Your task to perform on an android device: open app "PlayWell" (install if not already installed) Image 0: 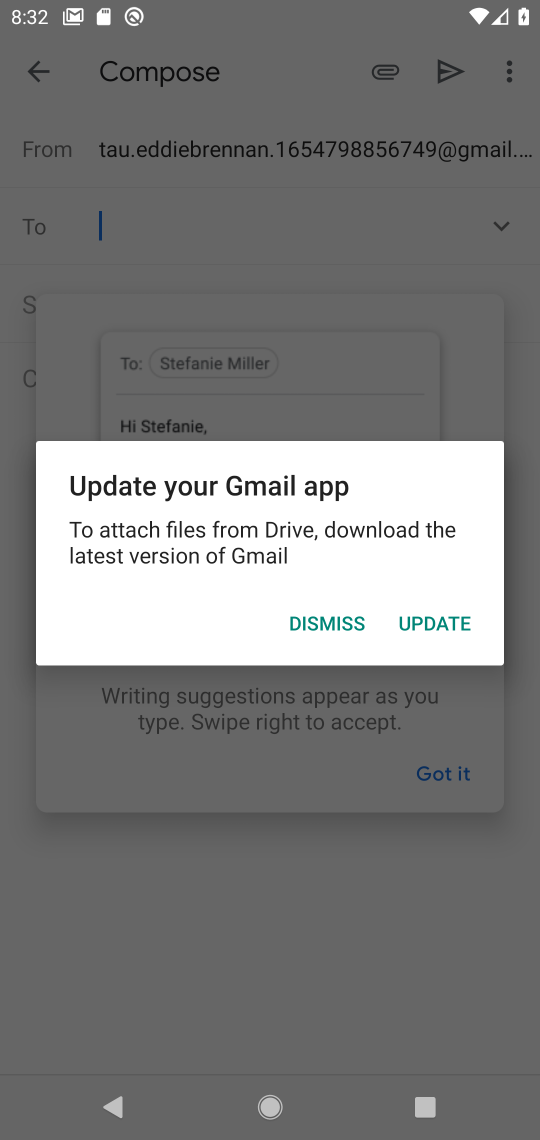
Step 0: click (323, 617)
Your task to perform on an android device: open app "PlayWell" (install if not already installed) Image 1: 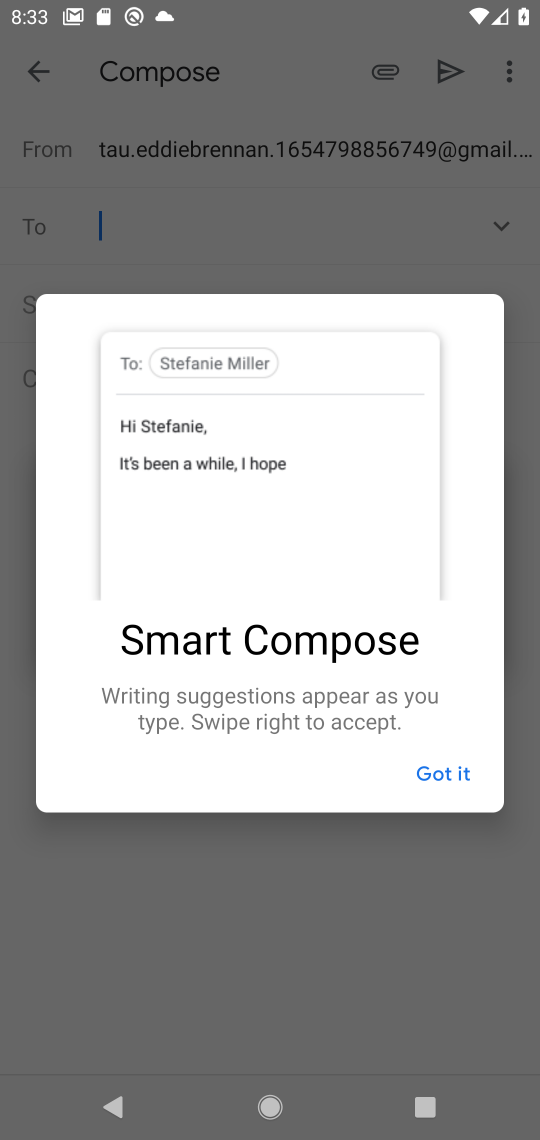
Step 1: press home button
Your task to perform on an android device: open app "PlayWell" (install if not already installed) Image 2: 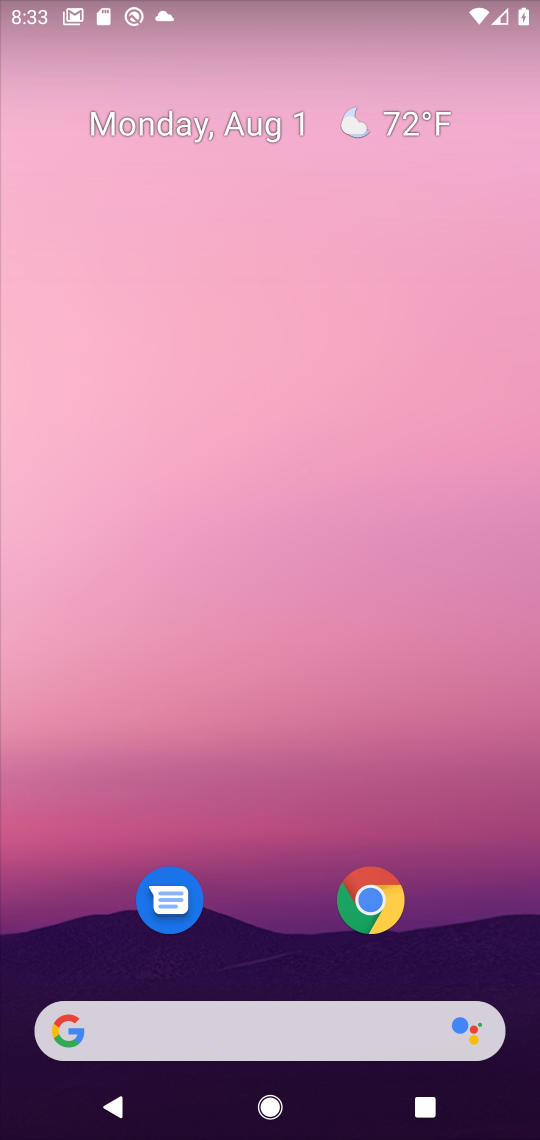
Step 2: drag from (351, 970) to (195, 34)
Your task to perform on an android device: open app "PlayWell" (install if not already installed) Image 3: 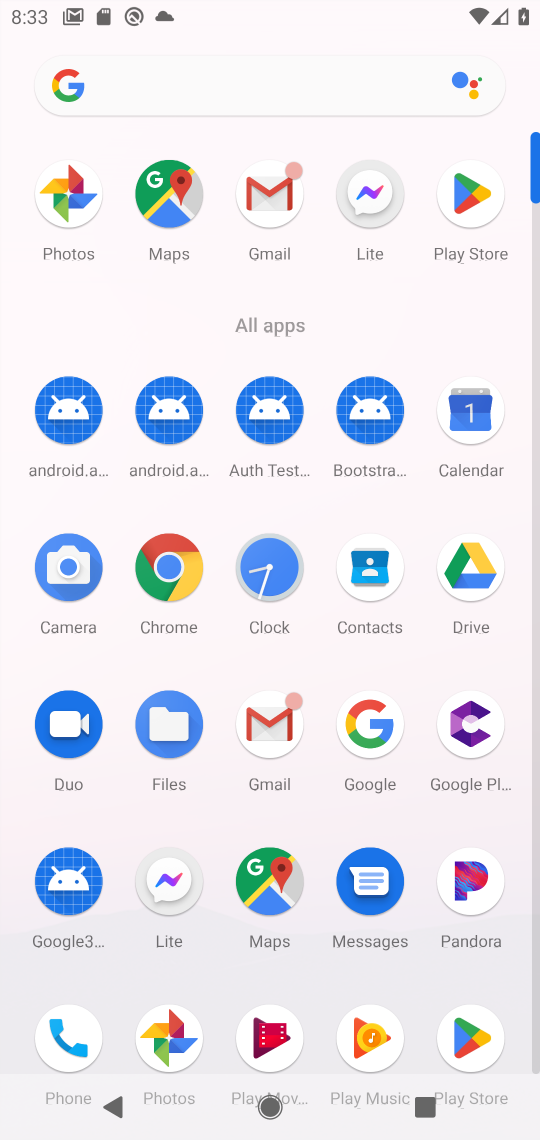
Step 3: click (471, 1010)
Your task to perform on an android device: open app "PlayWell" (install if not already installed) Image 4: 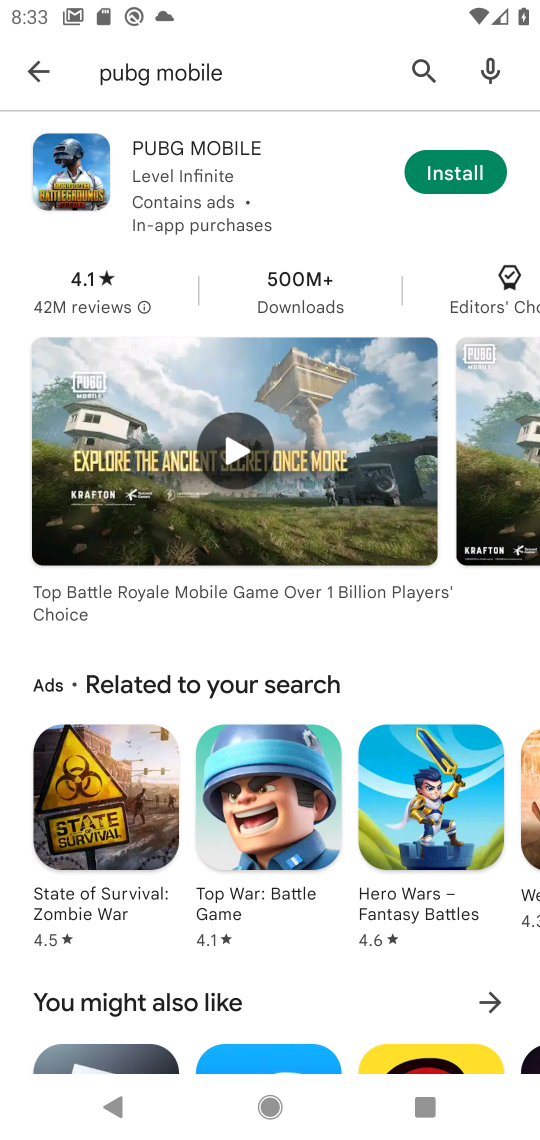
Step 4: click (43, 71)
Your task to perform on an android device: open app "PlayWell" (install if not already installed) Image 5: 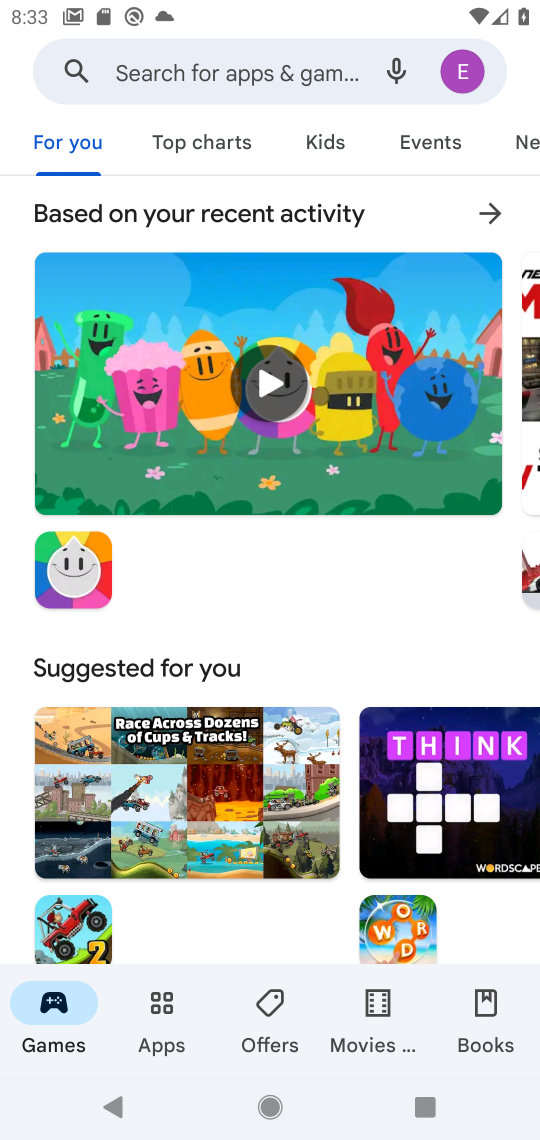
Step 5: click (143, 79)
Your task to perform on an android device: open app "PlayWell" (install if not already installed) Image 6: 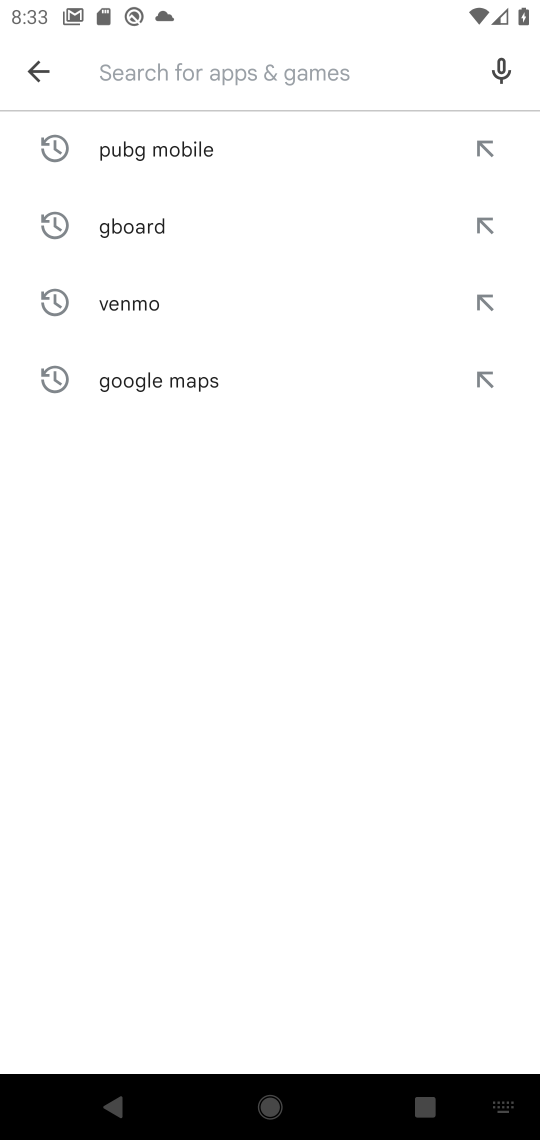
Step 6: drag from (228, 1130) to (488, 976)
Your task to perform on an android device: open app "PlayWell" (install if not already installed) Image 7: 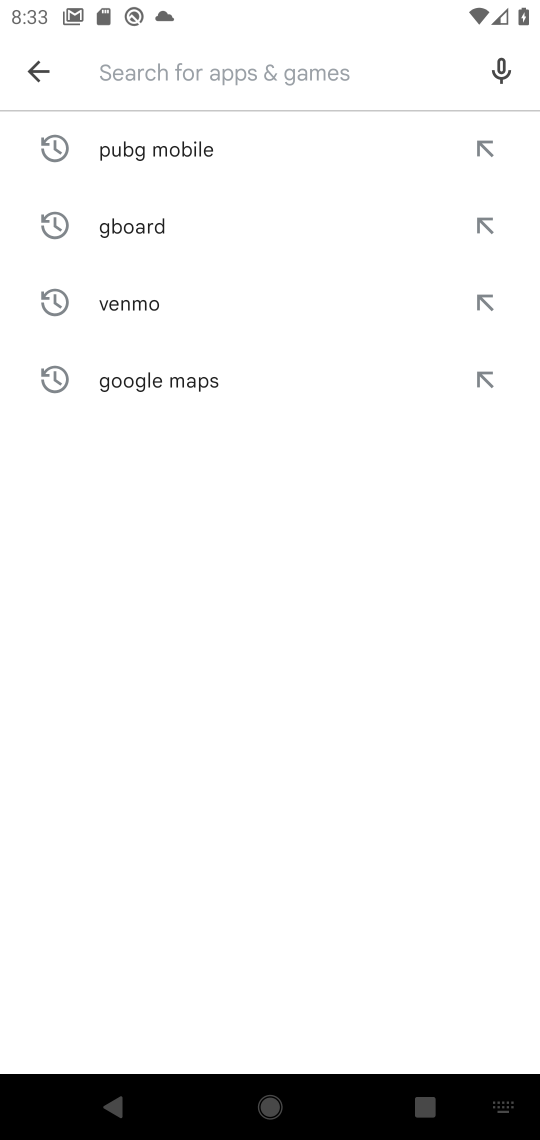
Step 7: drag from (157, 1120) to (500, 1005)
Your task to perform on an android device: open app "PlayWell" (install if not already installed) Image 8: 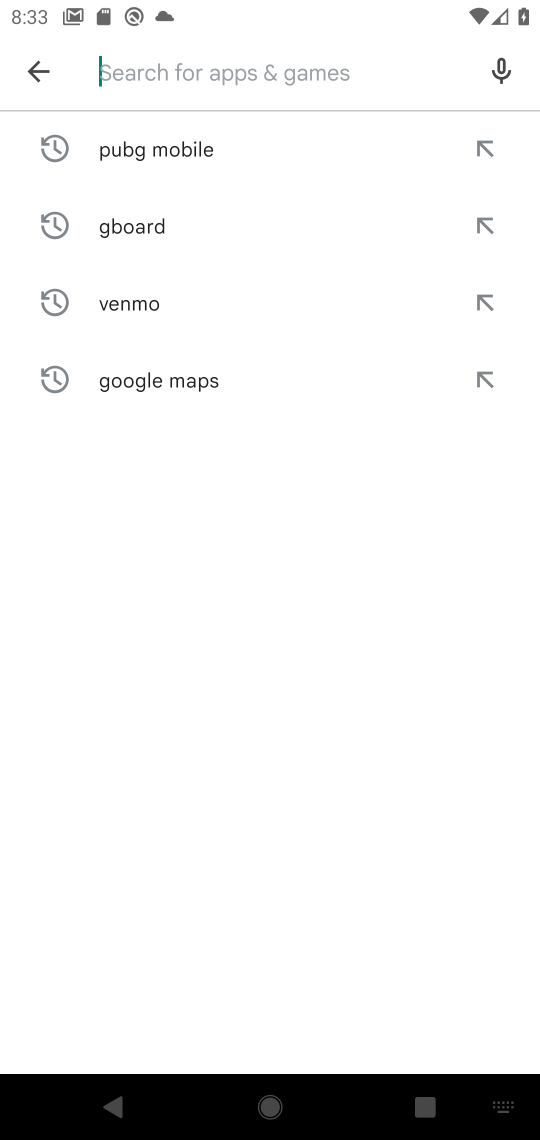
Step 8: type "PlayWell"
Your task to perform on an android device: open app "PlayWell" (install if not already installed) Image 9: 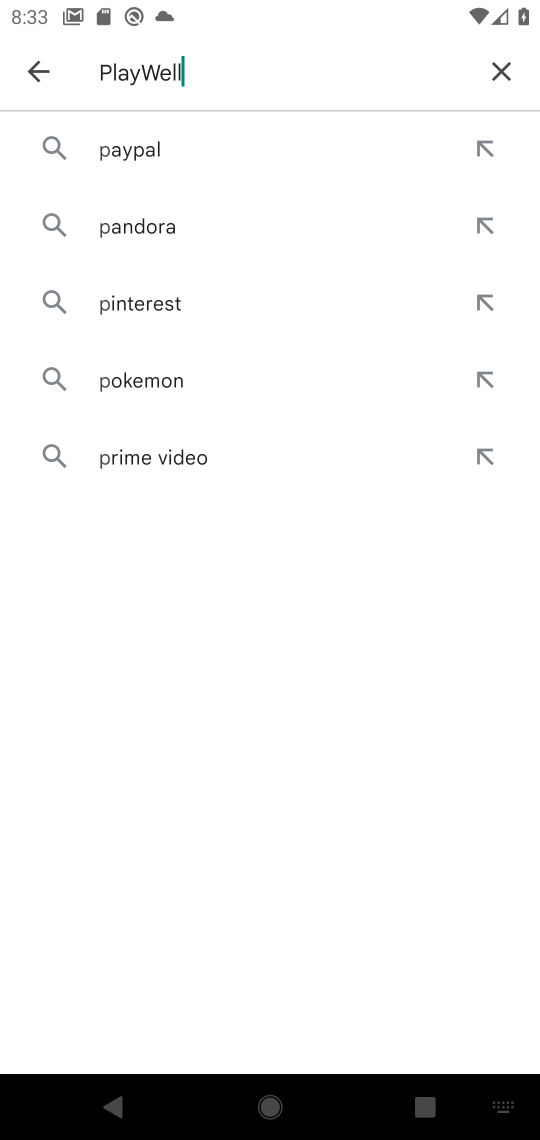
Step 9: type ""
Your task to perform on an android device: open app "PlayWell" (install if not already installed) Image 10: 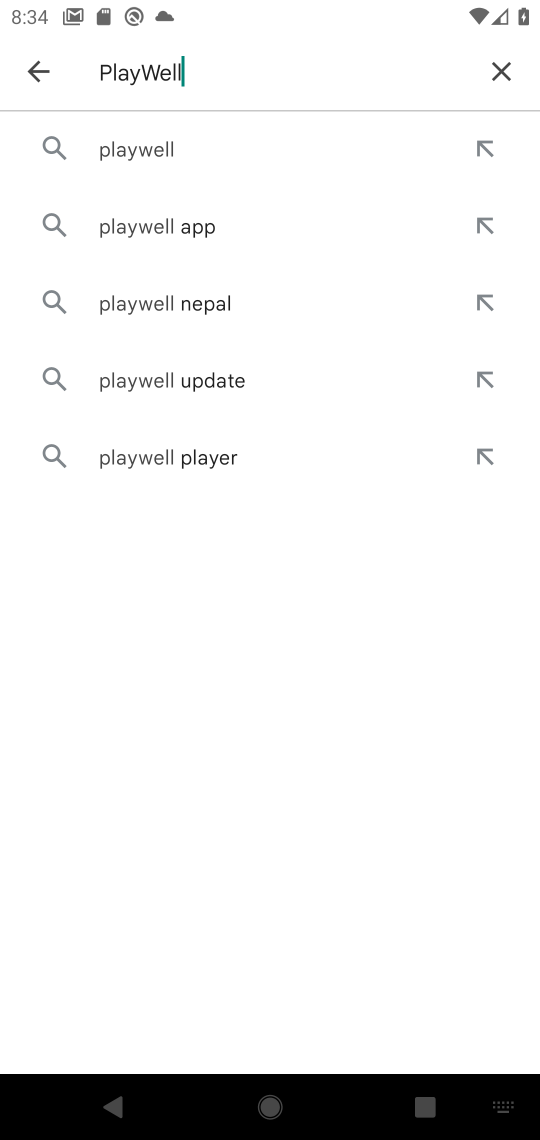
Step 10: click (168, 153)
Your task to perform on an android device: open app "PlayWell" (install if not already installed) Image 11: 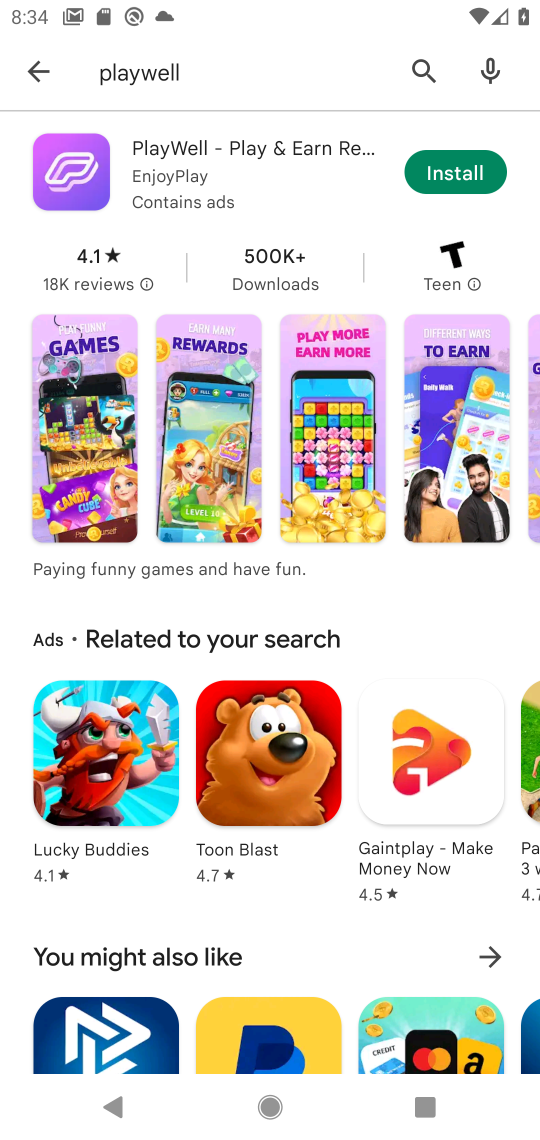
Step 11: click (432, 146)
Your task to perform on an android device: open app "PlayWell" (install if not already installed) Image 12: 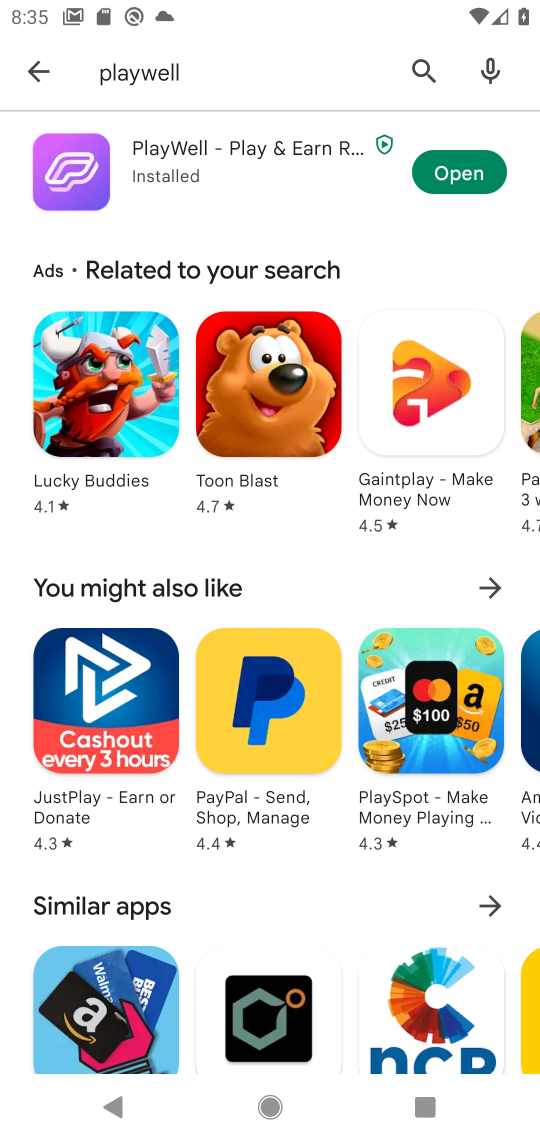
Step 12: click (447, 186)
Your task to perform on an android device: open app "PlayWell" (install if not already installed) Image 13: 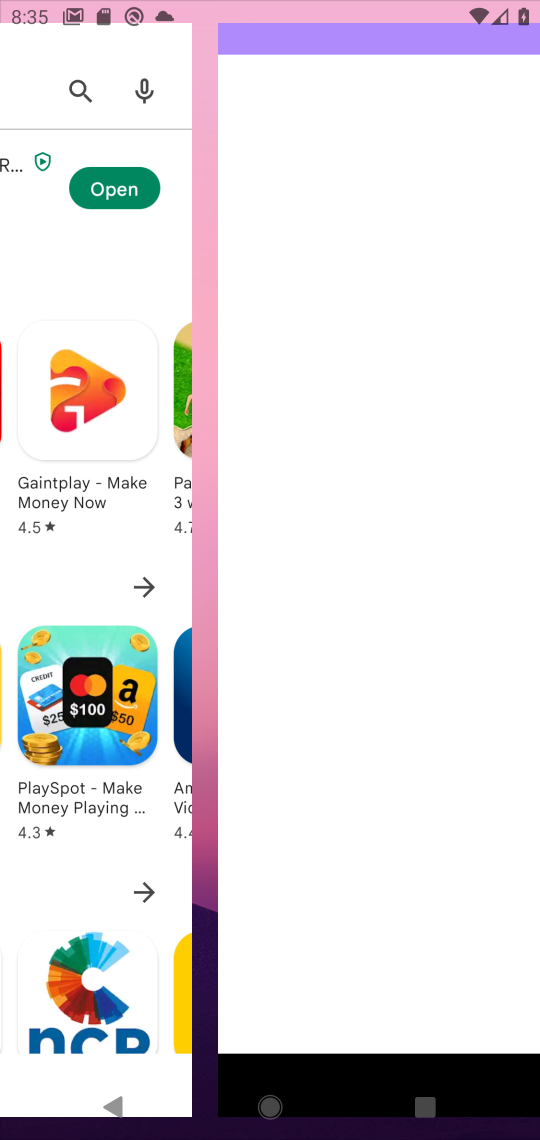
Step 13: task complete